Your task to perform on an android device: Toggle the flashlight Image 0: 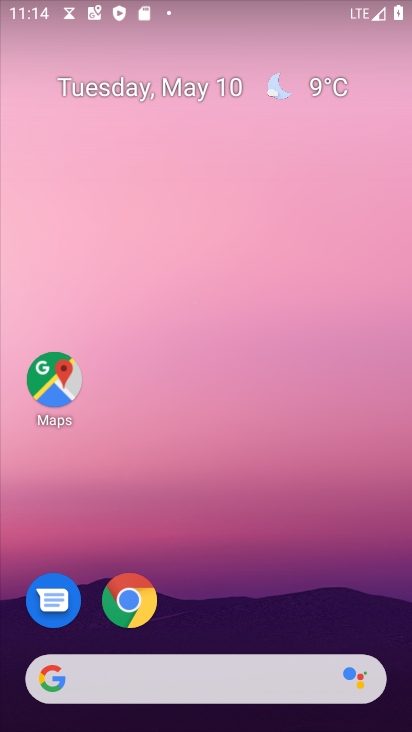
Step 0: drag from (285, 50) to (238, 464)
Your task to perform on an android device: Toggle the flashlight Image 1: 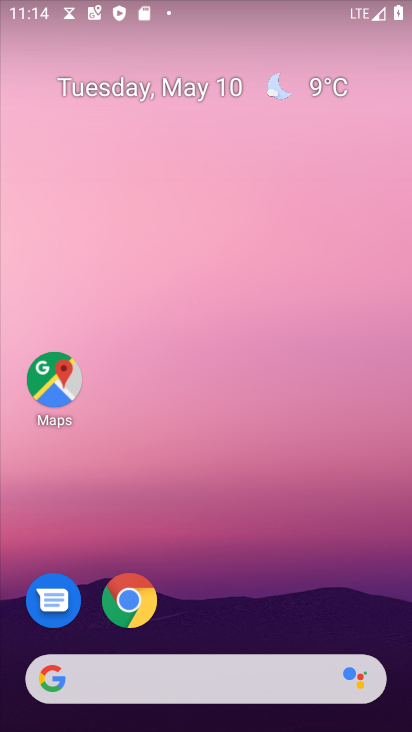
Step 1: task complete